Your task to perform on an android device: turn on improve location accuracy Image 0: 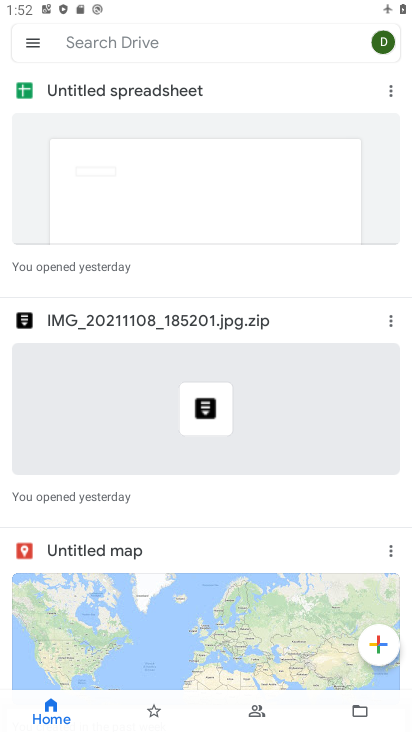
Step 0: press home button
Your task to perform on an android device: turn on improve location accuracy Image 1: 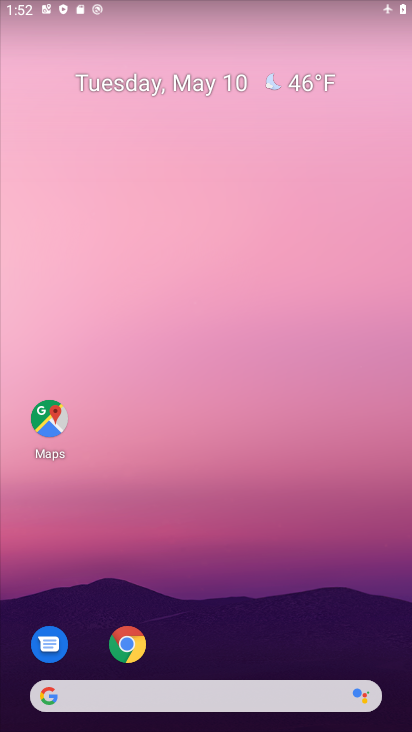
Step 1: drag from (228, 600) to (231, 152)
Your task to perform on an android device: turn on improve location accuracy Image 2: 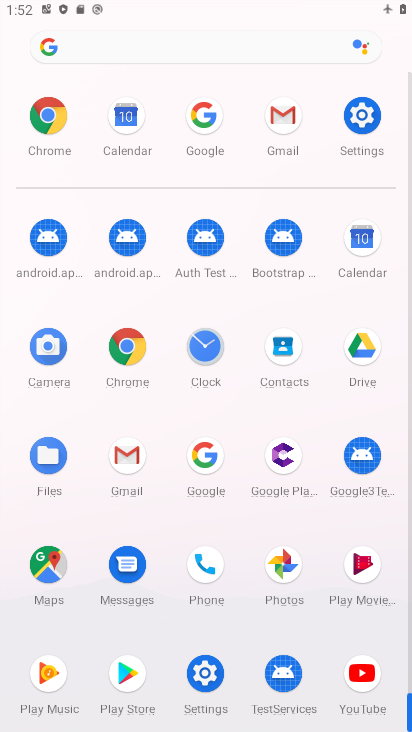
Step 2: click (347, 139)
Your task to perform on an android device: turn on improve location accuracy Image 3: 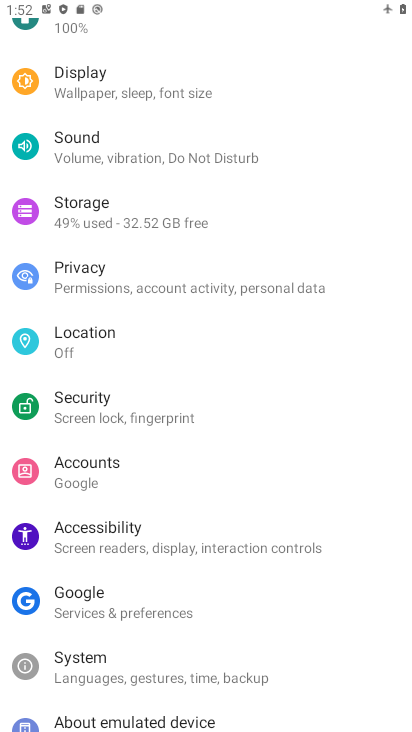
Step 3: click (162, 344)
Your task to perform on an android device: turn on improve location accuracy Image 4: 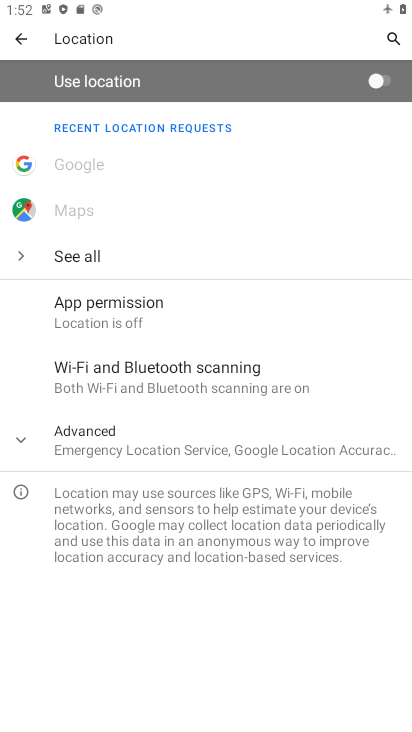
Step 4: click (176, 453)
Your task to perform on an android device: turn on improve location accuracy Image 5: 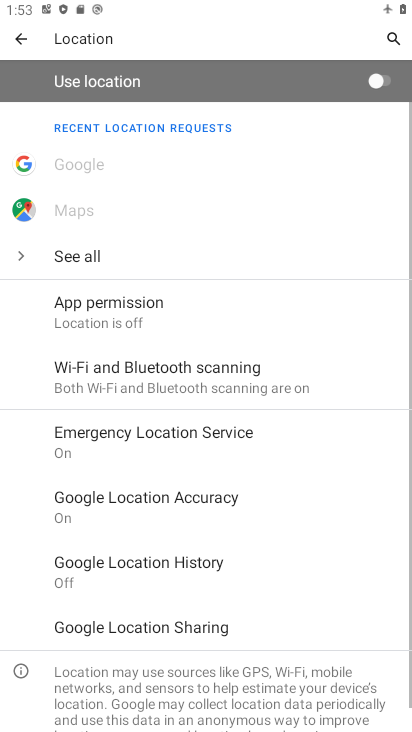
Step 5: task complete